Your task to perform on an android device: Open Google Image 0: 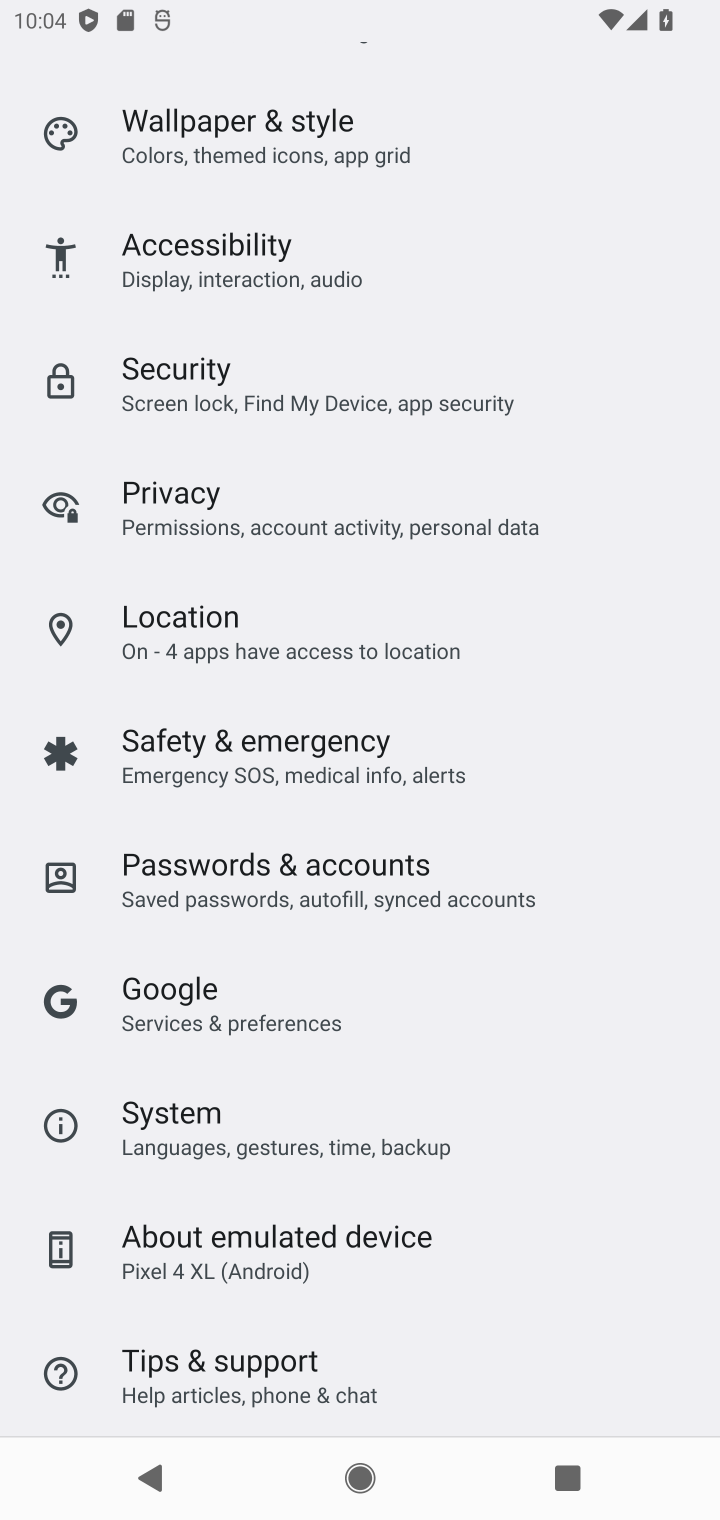
Step 0: press home button
Your task to perform on an android device: Open Google Image 1: 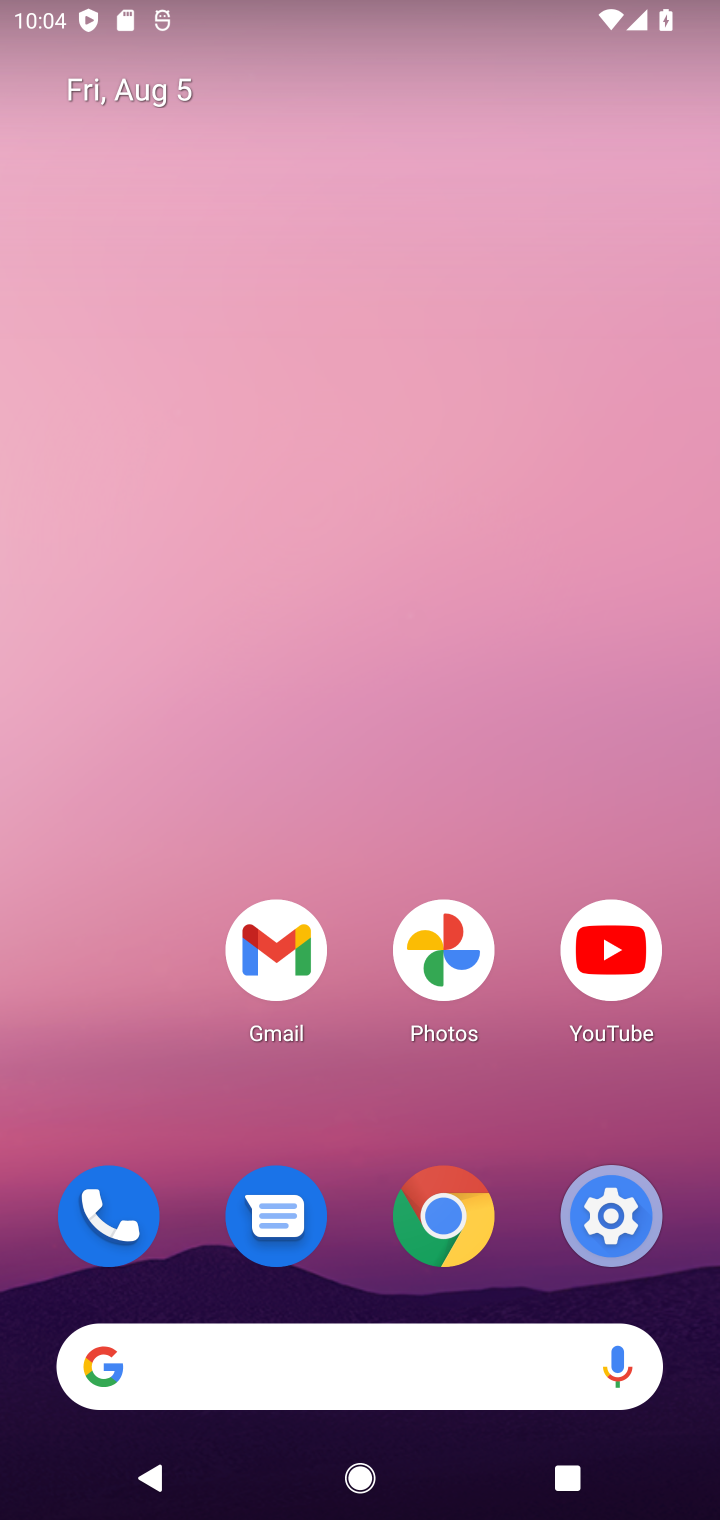
Step 1: drag from (492, 1364) to (265, 393)
Your task to perform on an android device: Open Google Image 2: 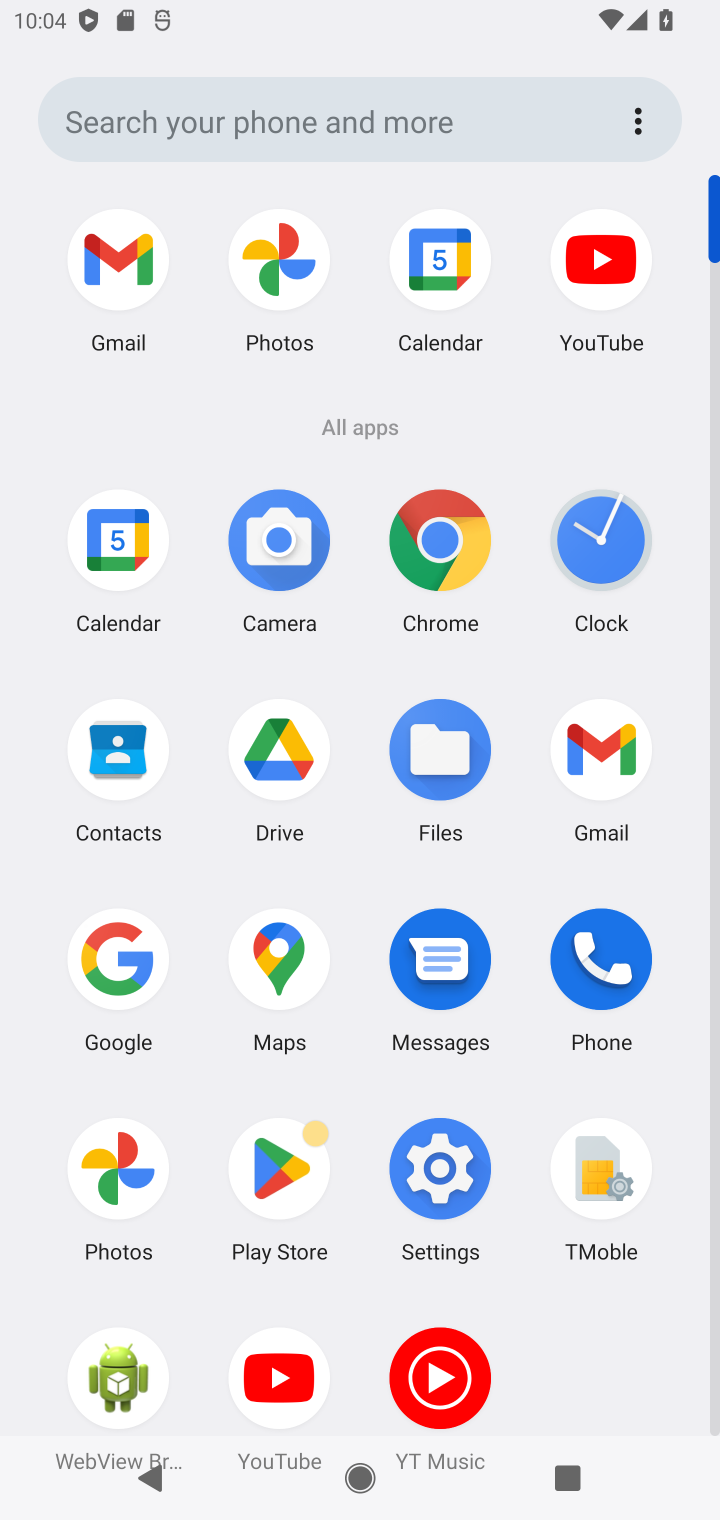
Step 2: click (448, 564)
Your task to perform on an android device: Open Google Image 3: 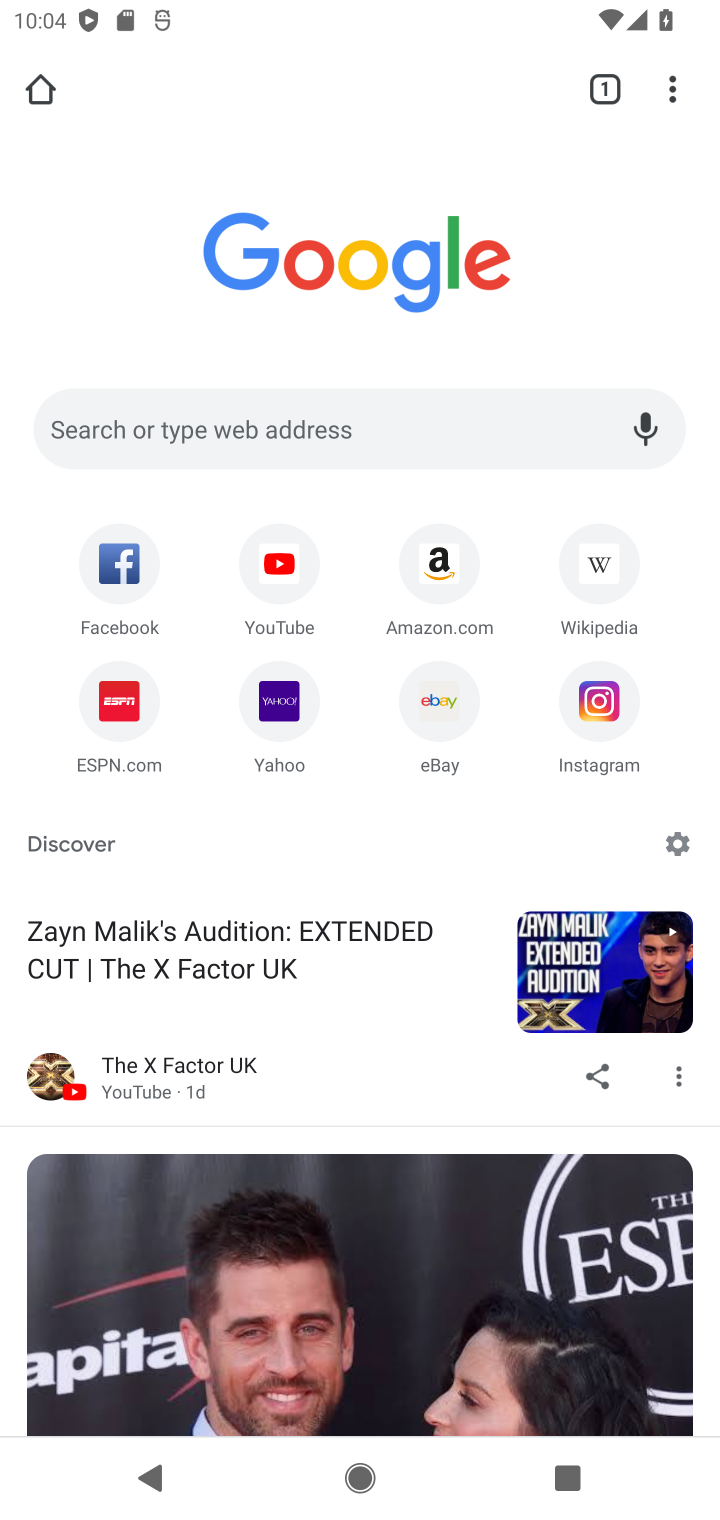
Step 3: task complete